Your task to perform on an android device: Search for pizza restaurants on Maps Image 0: 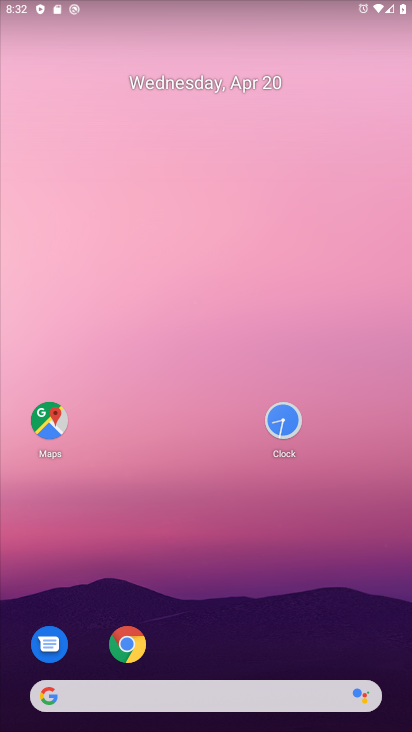
Step 0: drag from (200, 682) to (297, 13)
Your task to perform on an android device: Search for pizza restaurants on Maps Image 1: 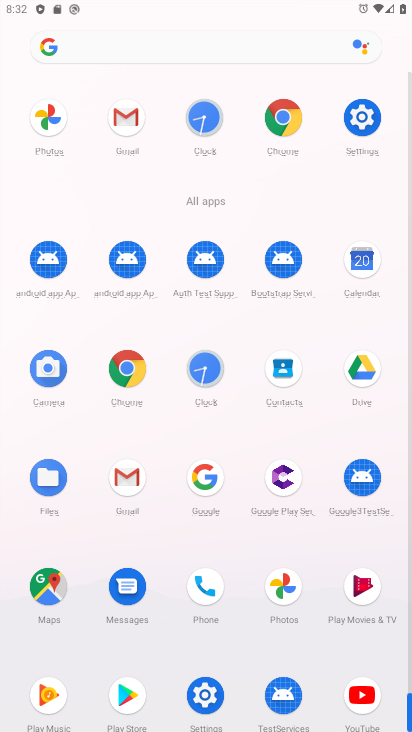
Step 1: drag from (199, 656) to (244, 263)
Your task to perform on an android device: Search for pizza restaurants on Maps Image 2: 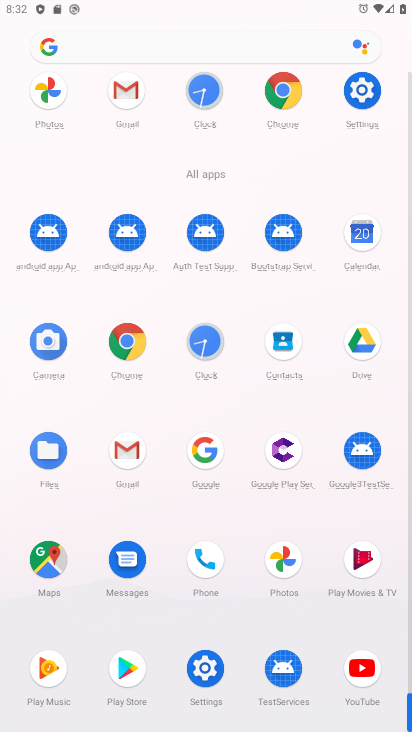
Step 2: click (53, 567)
Your task to perform on an android device: Search for pizza restaurants on Maps Image 3: 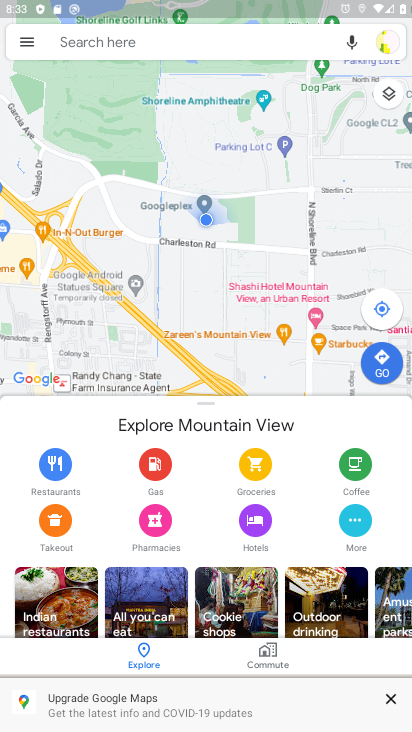
Step 3: click (117, 33)
Your task to perform on an android device: Search for pizza restaurants on Maps Image 4: 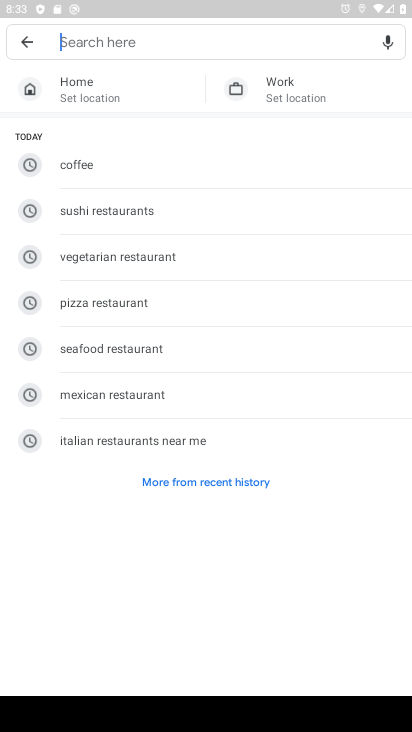
Step 4: click (103, 298)
Your task to perform on an android device: Search for pizza restaurants on Maps Image 5: 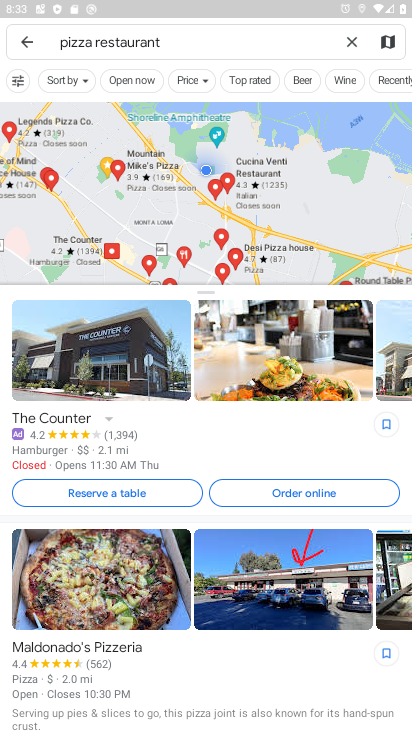
Step 5: task complete